Your task to perform on an android device: toggle wifi Image 0: 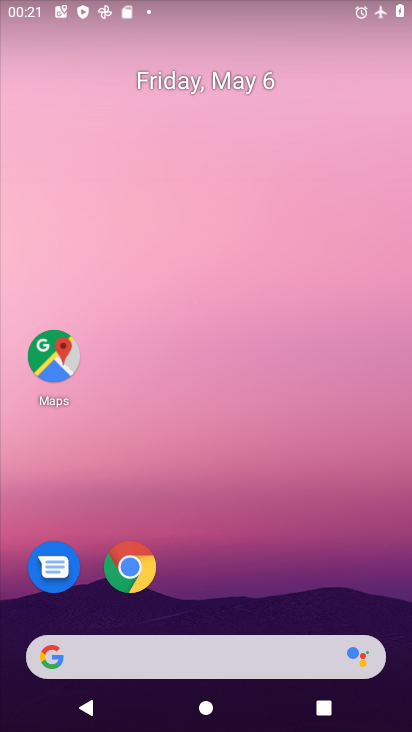
Step 0: drag from (206, 609) to (163, 199)
Your task to perform on an android device: toggle wifi Image 1: 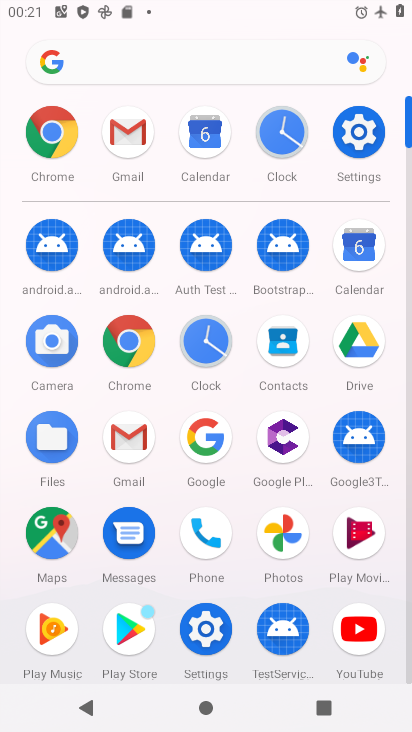
Step 1: click (358, 132)
Your task to perform on an android device: toggle wifi Image 2: 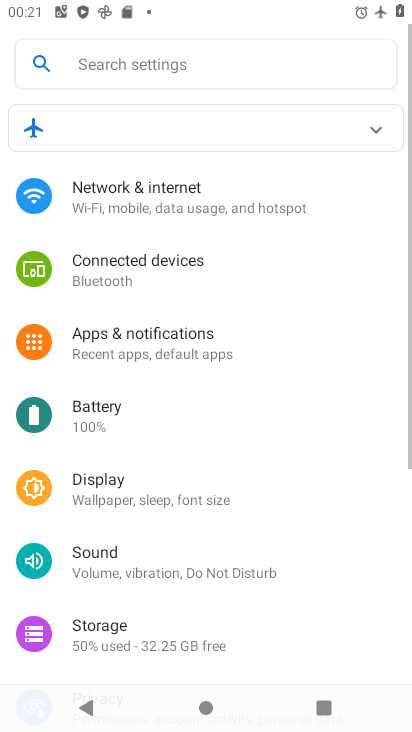
Step 2: click (219, 182)
Your task to perform on an android device: toggle wifi Image 3: 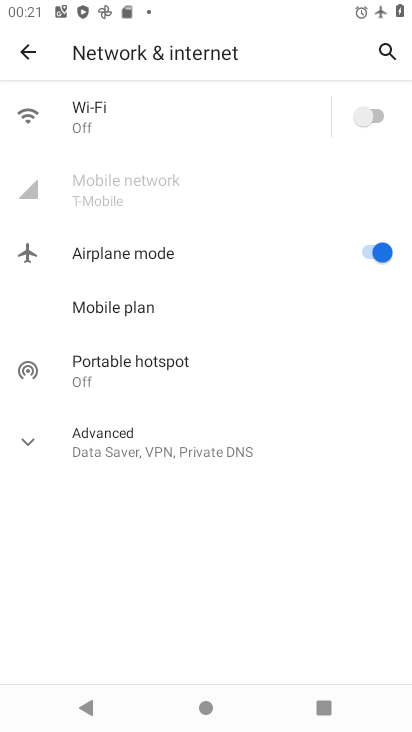
Step 3: click (376, 120)
Your task to perform on an android device: toggle wifi Image 4: 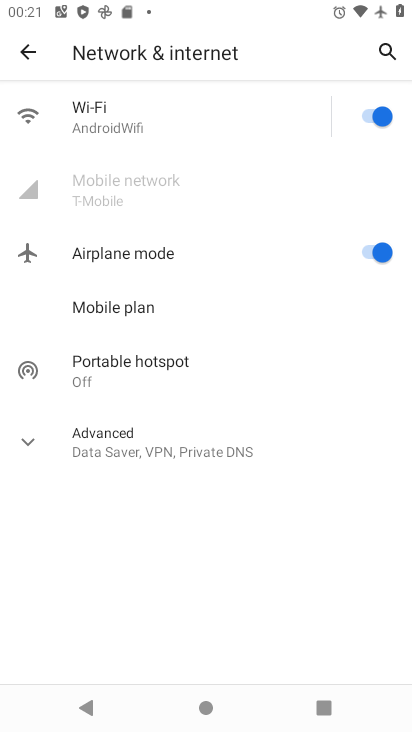
Step 4: task complete